Your task to perform on an android device: Check the news Image 0: 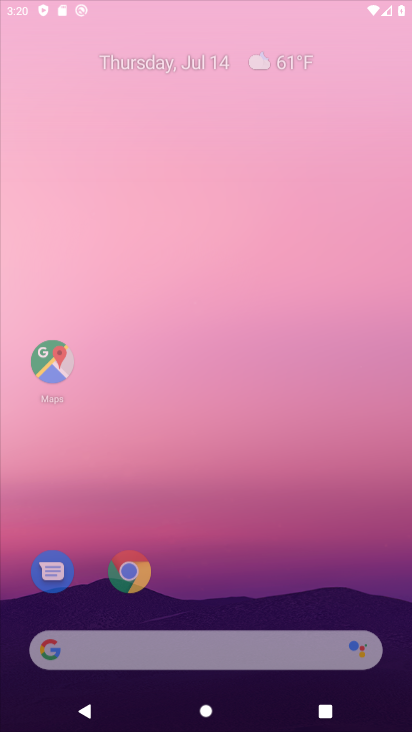
Step 0: press home button
Your task to perform on an android device: Check the news Image 1: 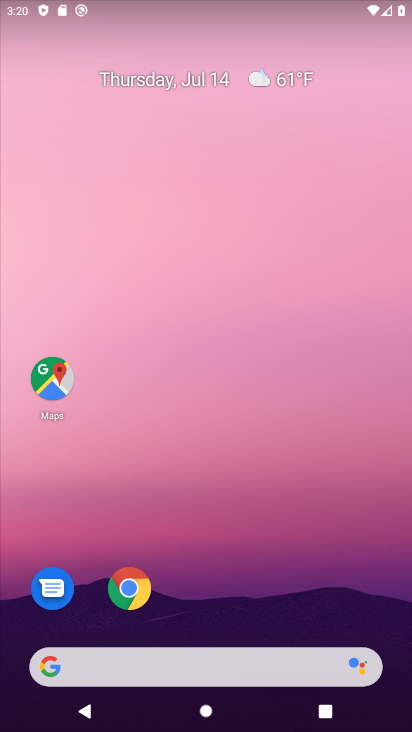
Step 1: click (132, 665)
Your task to perform on an android device: Check the news Image 2: 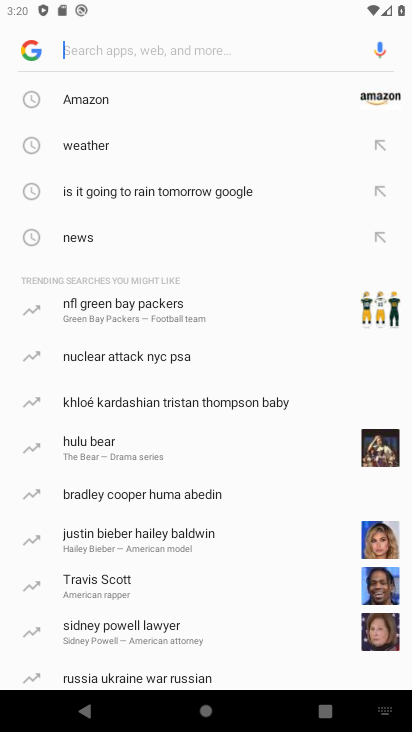
Step 2: click (75, 238)
Your task to perform on an android device: Check the news Image 3: 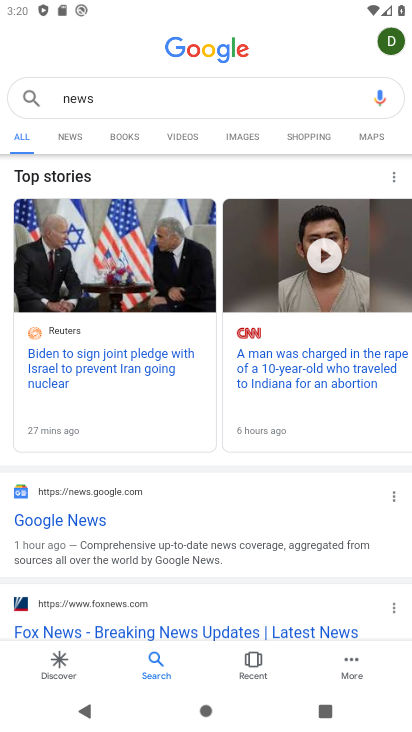
Step 3: task complete